Your task to perform on an android device: turn on the 24-hour format for clock Image 0: 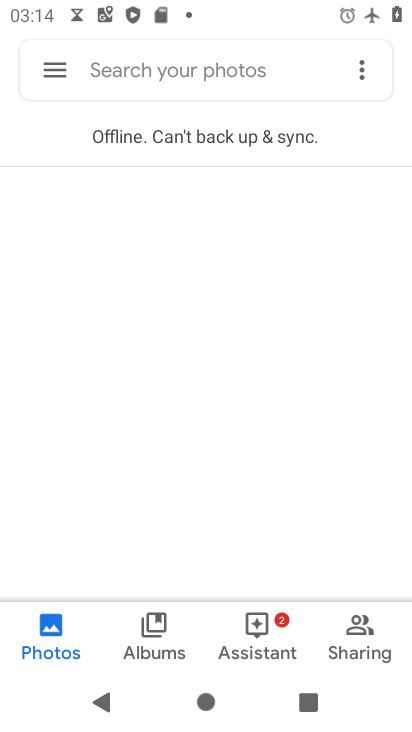
Step 0: press home button
Your task to perform on an android device: turn on the 24-hour format for clock Image 1: 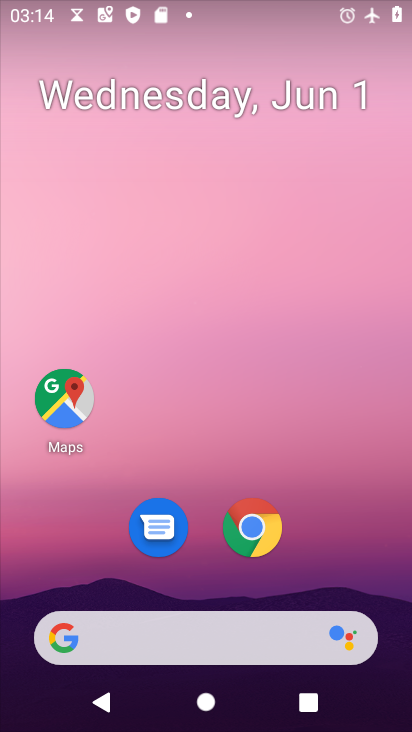
Step 1: drag from (299, 580) to (214, 169)
Your task to perform on an android device: turn on the 24-hour format for clock Image 2: 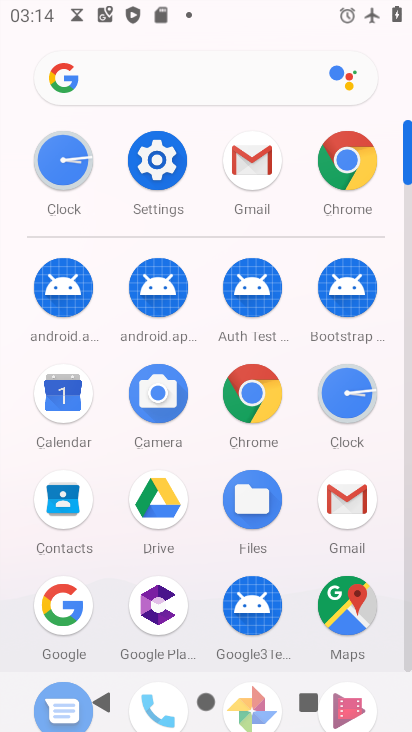
Step 2: click (64, 162)
Your task to perform on an android device: turn on the 24-hour format for clock Image 3: 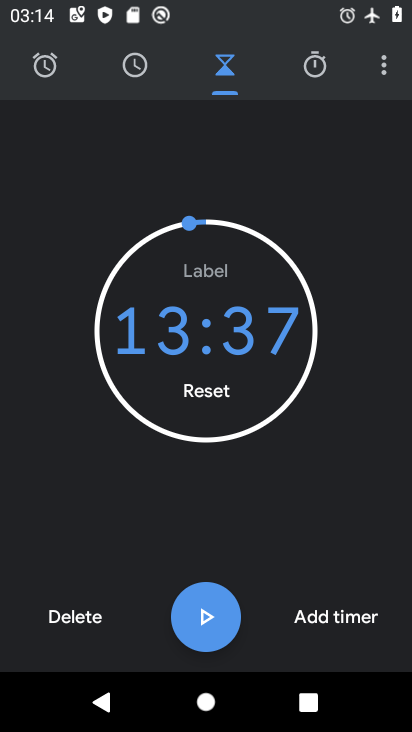
Step 3: click (383, 63)
Your task to perform on an android device: turn on the 24-hour format for clock Image 4: 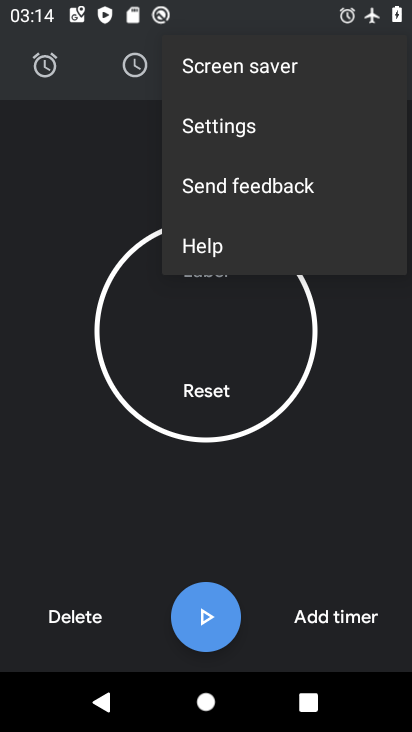
Step 4: click (253, 129)
Your task to perform on an android device: turn on the 24-hour format for clock Image 5: 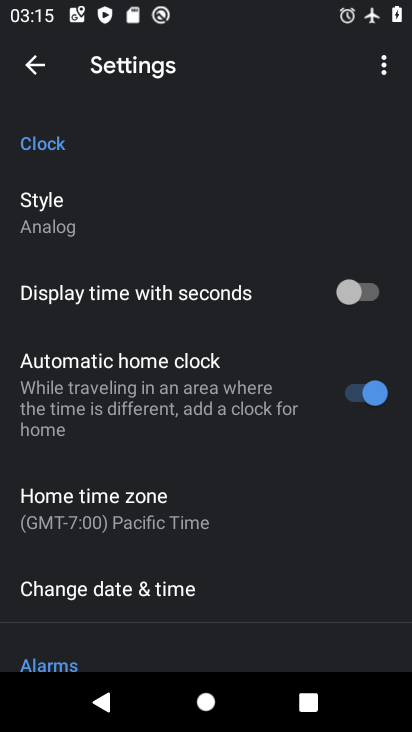
Step 5: click (165, 585)
Your task to perform on an android device: turn on the 24-hour format for clock Image 6: 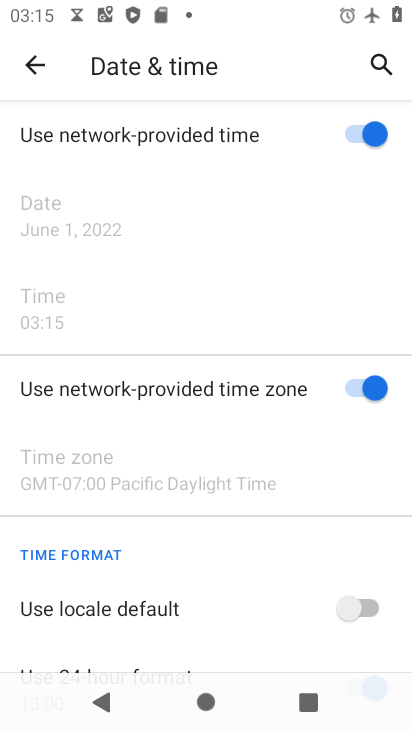
Step 6: task complete